Your task to perform on an android device: Open Reddit.com Image 0: 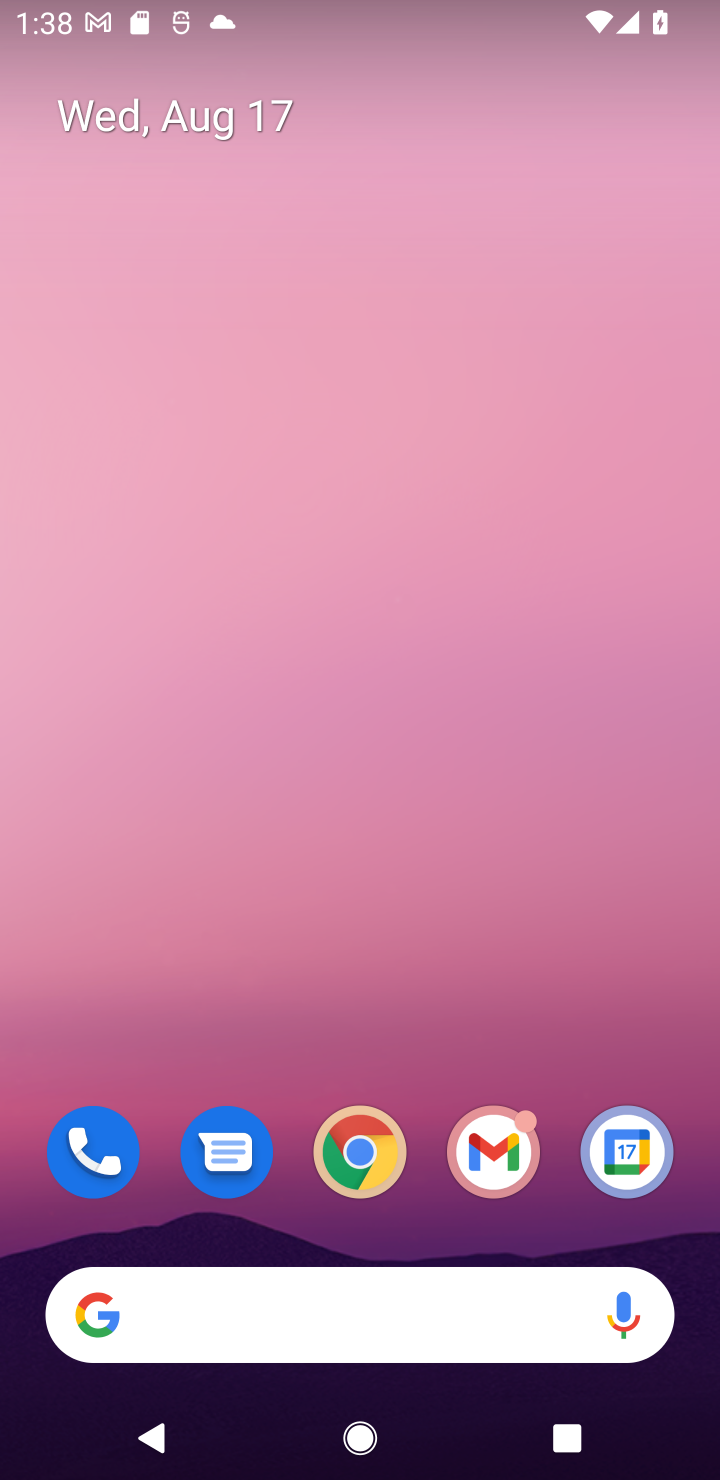
Step 0: drag from (577, 1248) to (320, 2)
Your task to perform on an android device: Open Reddit.com Image 1: 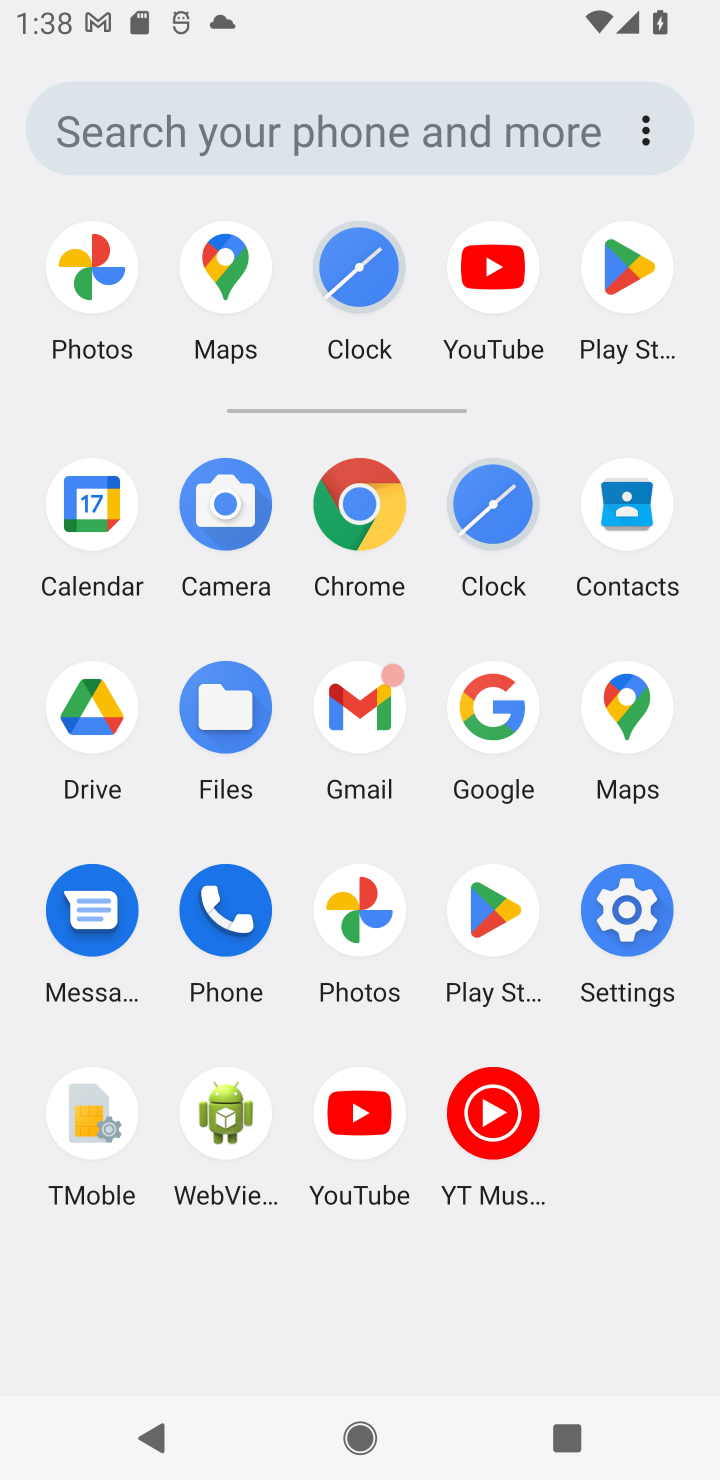
Step 1: click (467, 685)
Your task to perform on an android device: Open Reddit.com Image 2: 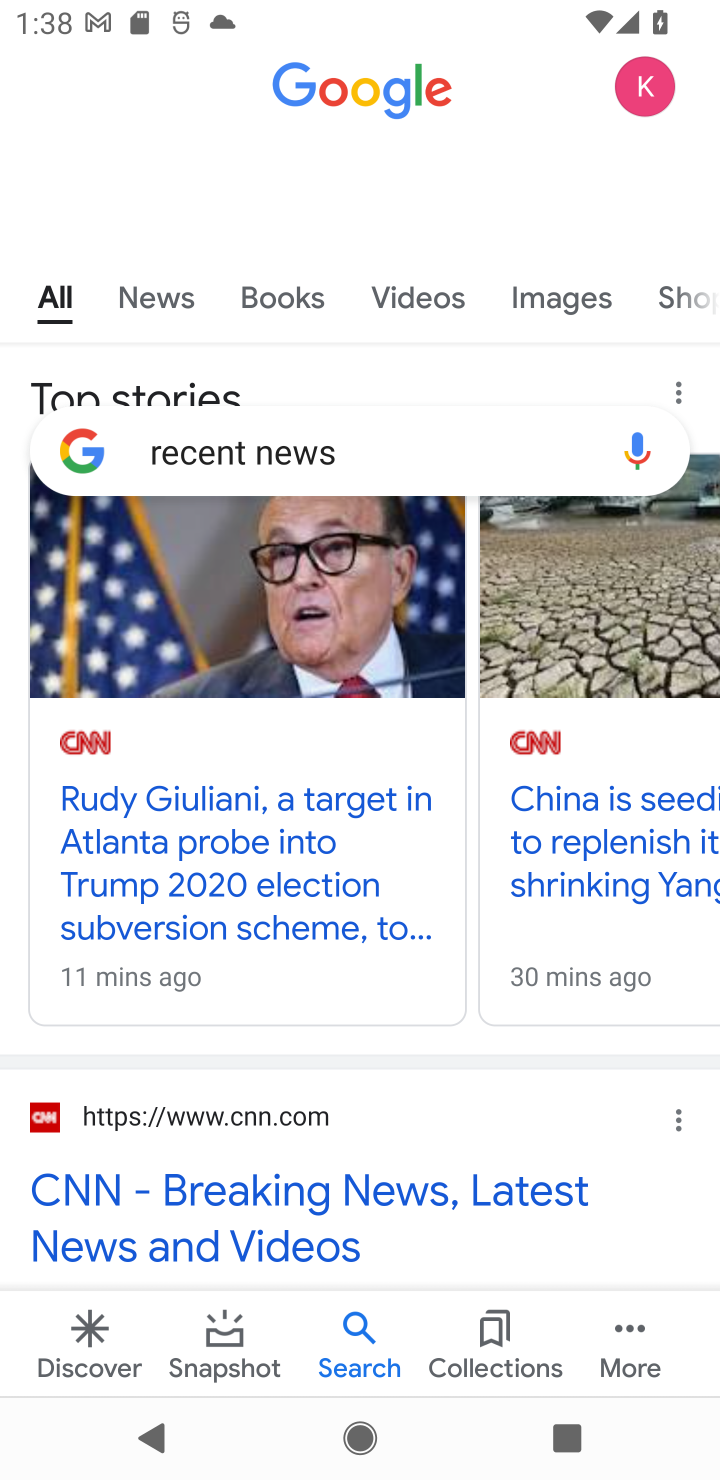
Step 2: press back button
Your task to perform on an android device: Open Reddit.com Image 3: 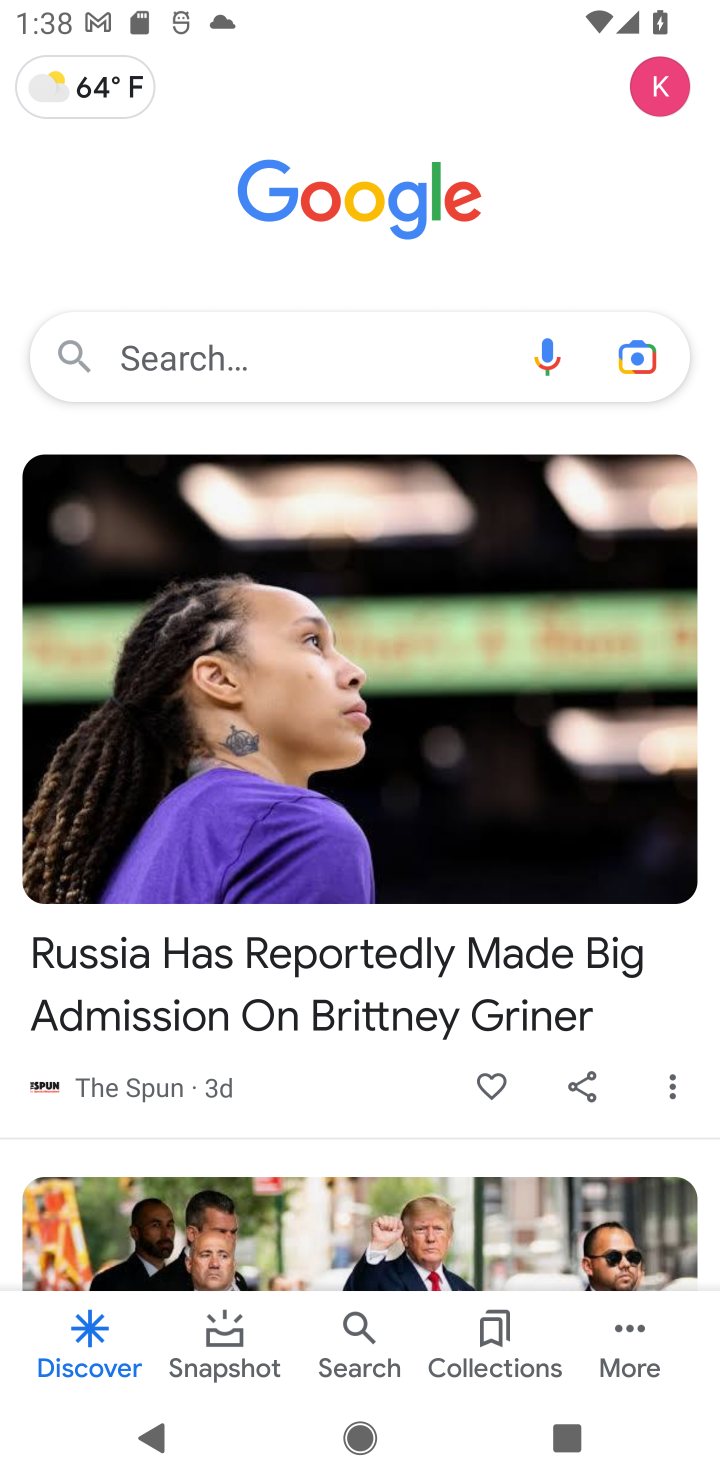
Step 3: click (134, 337)
Your task to perform on an android device: Open Reddit.com Image 4: 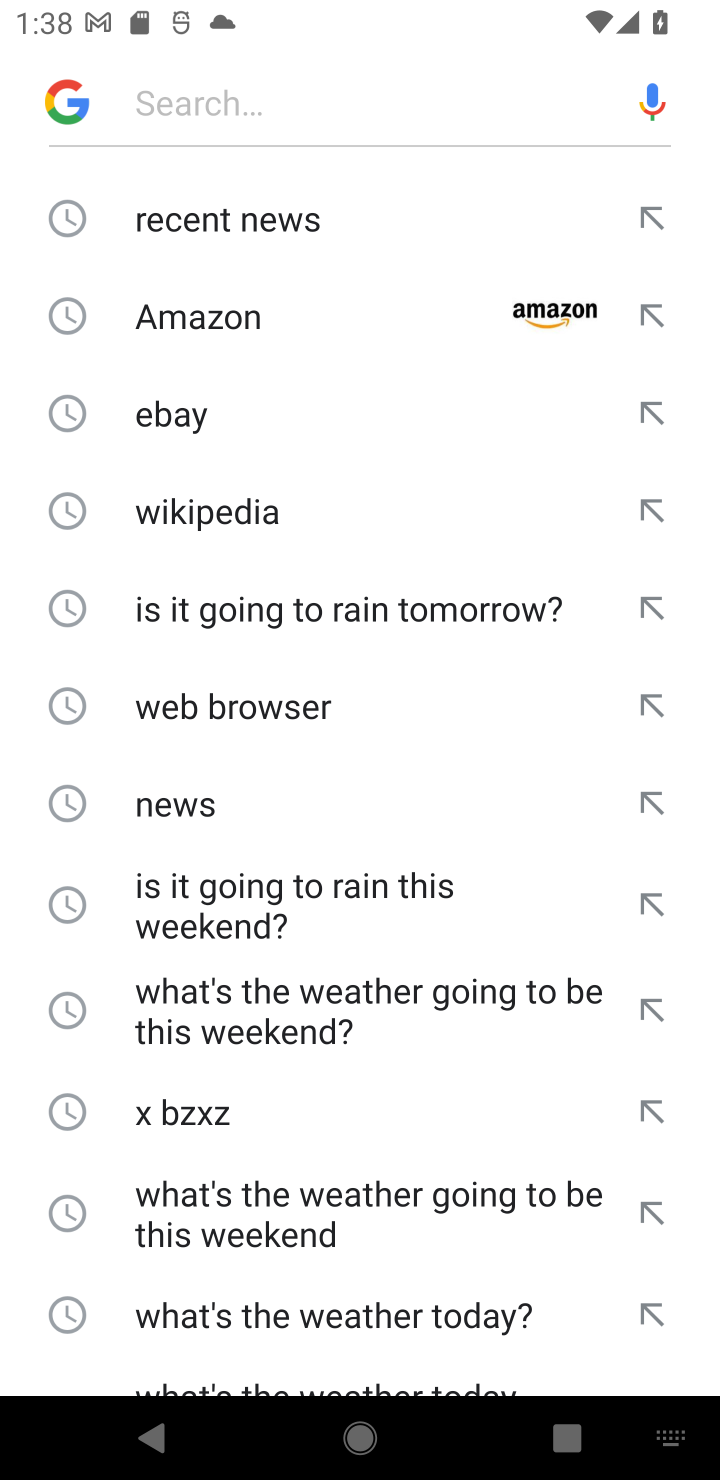
Step 4: type "Reddit.com"
Your task to perform on an android device: Open Reddit.com Image 5: 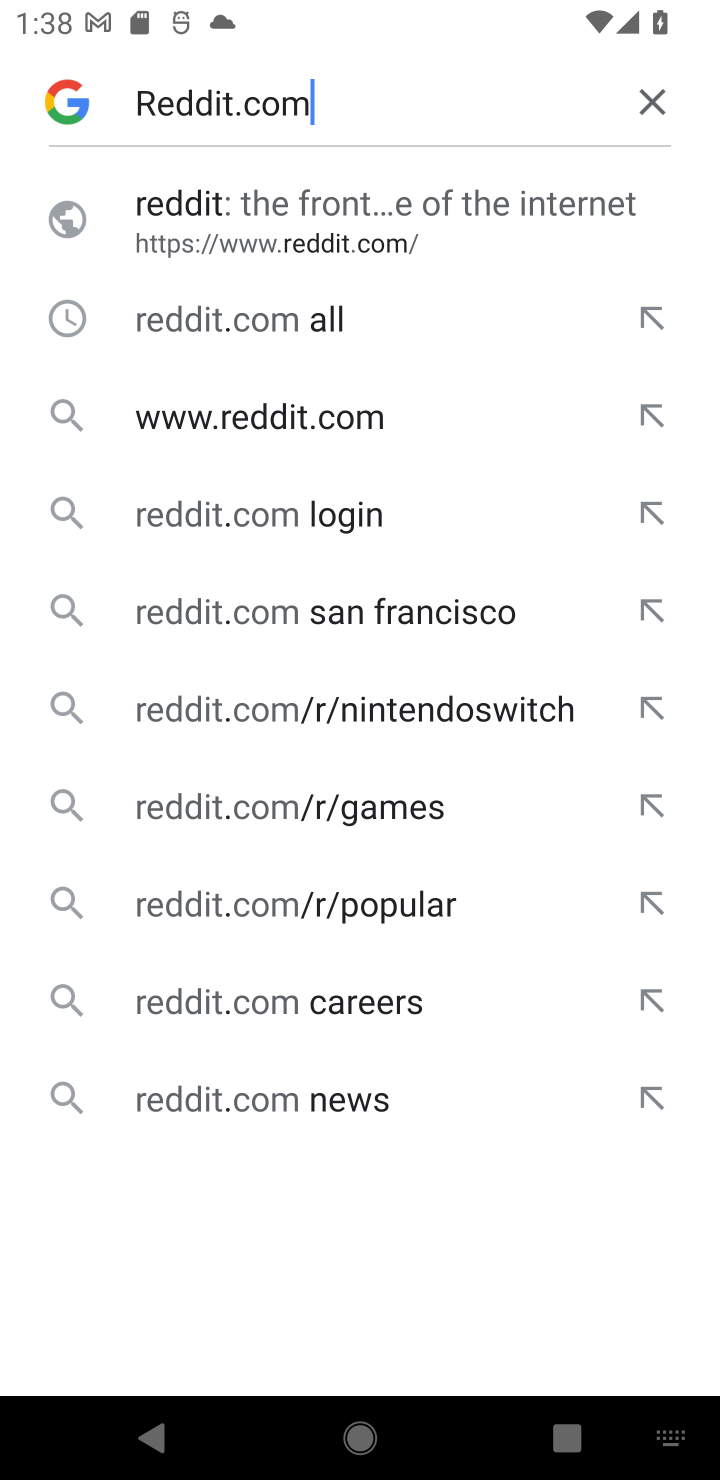
Step 5: click (296, 213)
Your task to perform on an android device: Open Reddit.com Image 6: 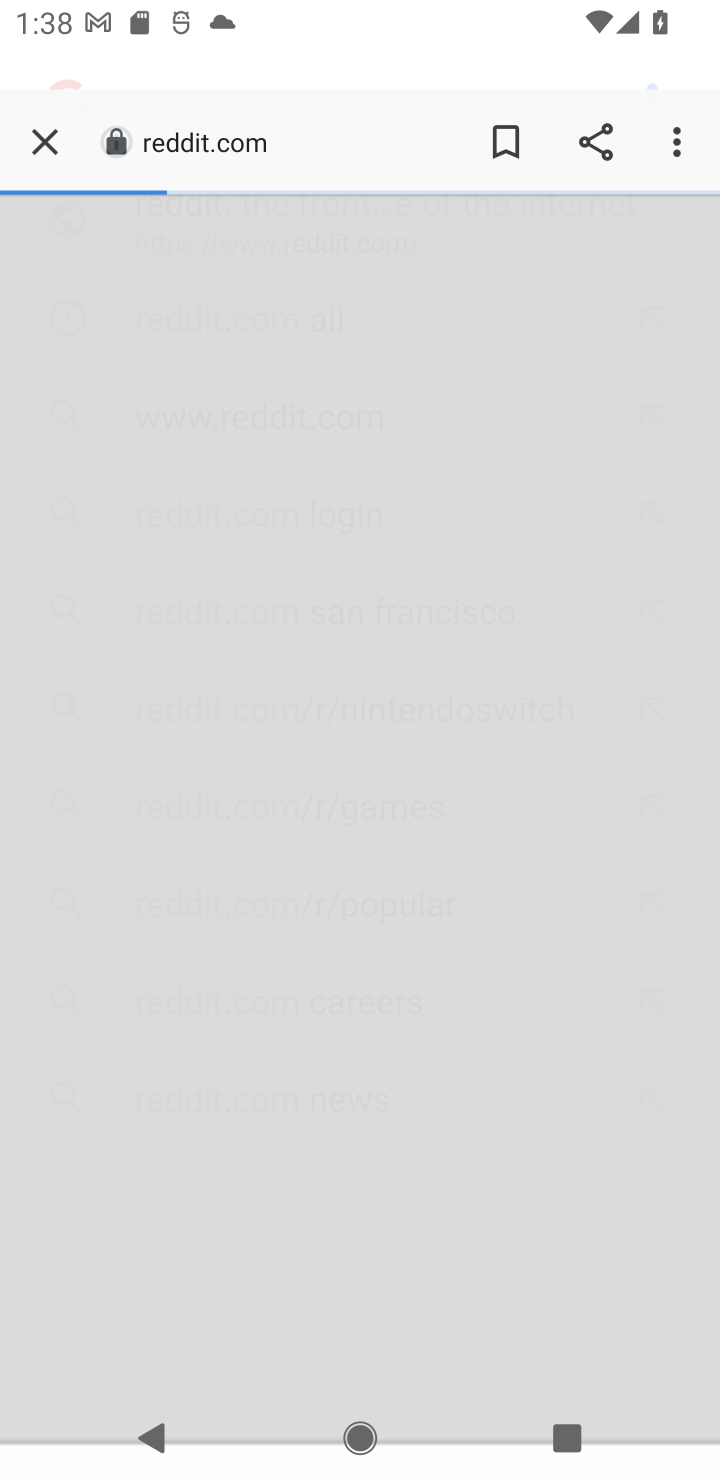
Step 6: click (294, 211)
Your task to perform on an android device: Open Reddit.com Image 7: 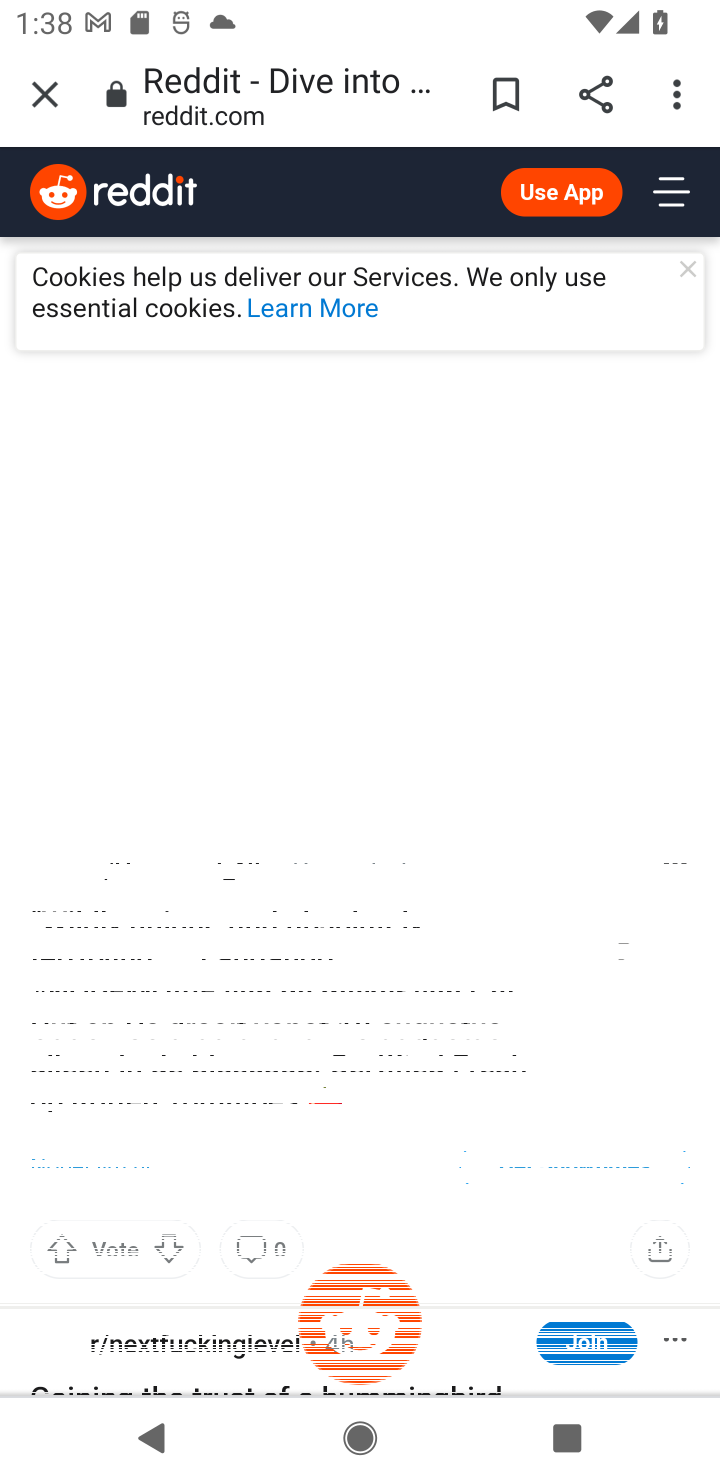
Step 7: task complete